Your task to perform on an android device: turn off translation in the chrome app Image 0: 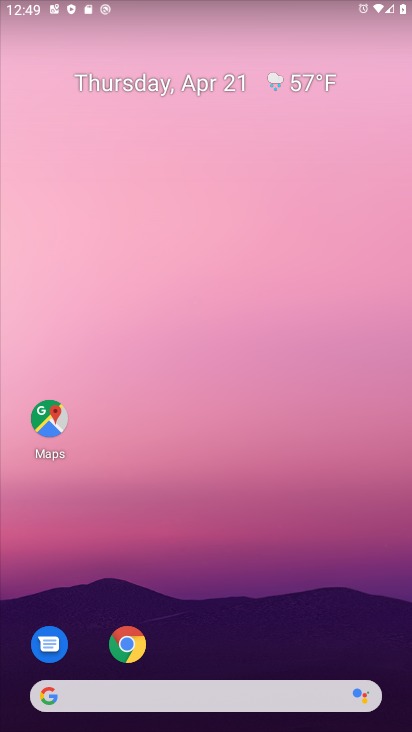
Step 0: drag from (205, 655) to (139, 73)
Your task to perform on an android device: turn off translation in the chrome app Image 1: 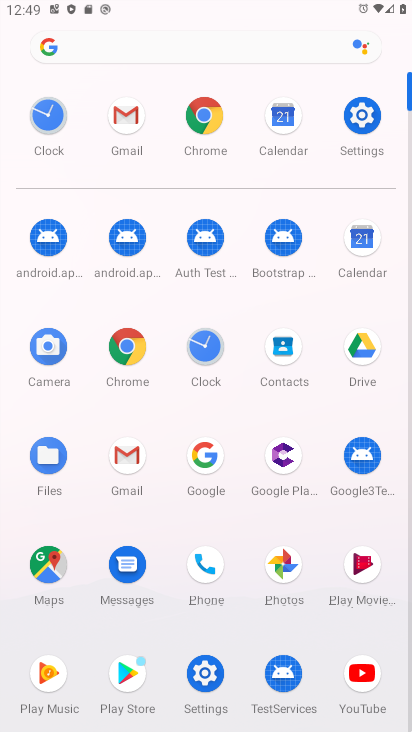
Step 1: click (126, 352)
Your task to perform on an android device: turn off translation in the chrome app Image 2: 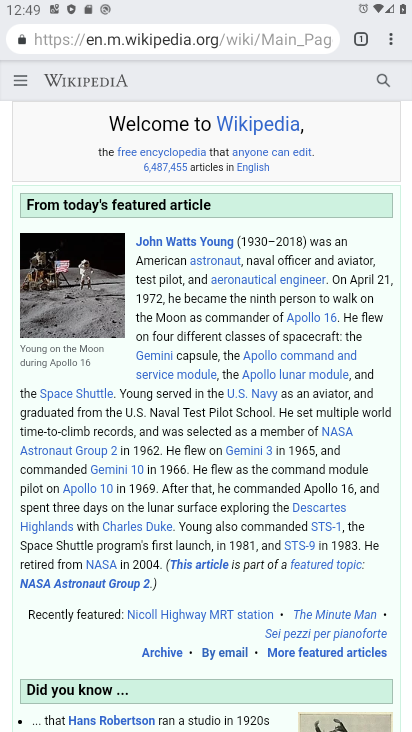
Step 2: drag from (389, 41) to (281, 515)
Your task to perform on an android device: turn off translation in the chrome app Image 3: 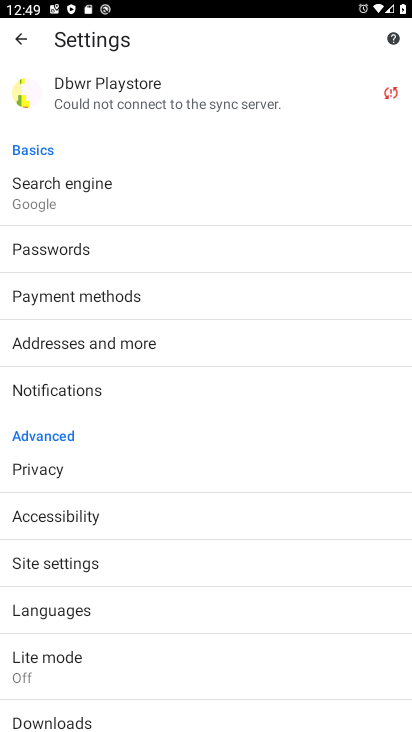
Step 3: click (74, 607)
Your task to perform on an android device: turn off translation in the chrome app Image 4: 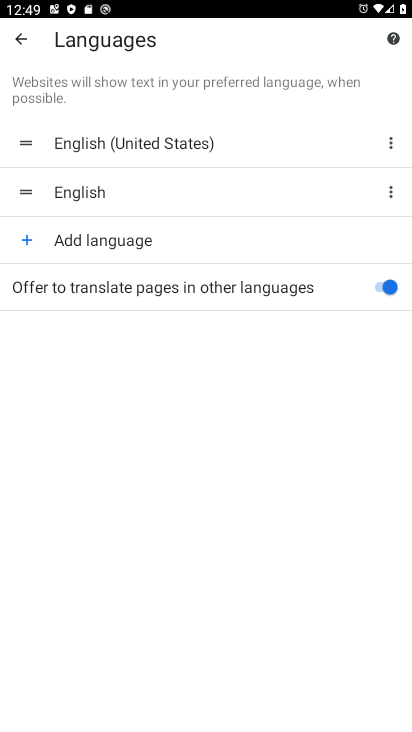
Step 4: click (388, 286)
Your task to perform on an android device: turn off translation in the chrome app Image 5: 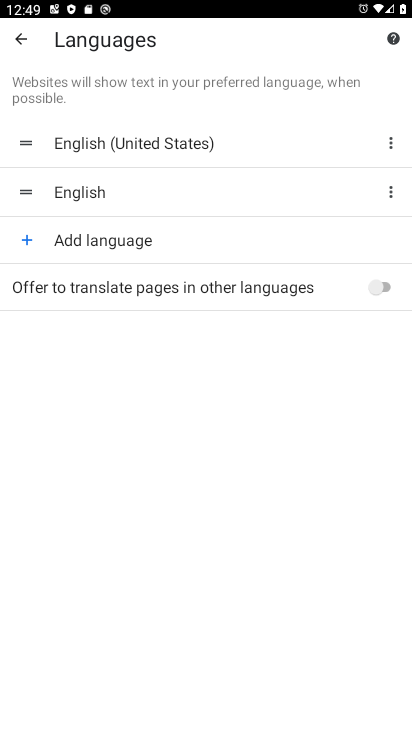
Step 5: task complete